Your task to perform on an android device: What's on my calendar today? Image 0: 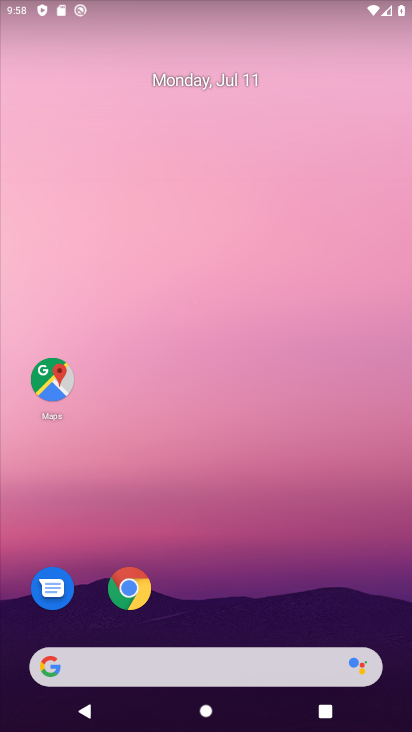
Step 0: drag from (189, 616) to (124, 16)
Your task to perform on an android device: What's on my calendar today? Image 1: 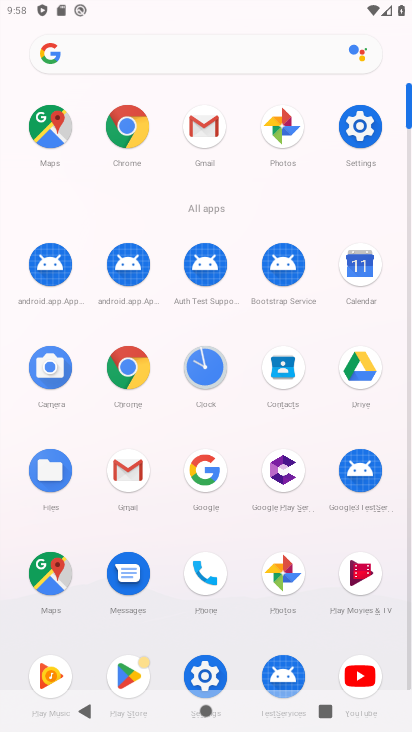
Step 1: click (360, 269)
Your task to perform on an android device: What's on my calendar today? Image 2: 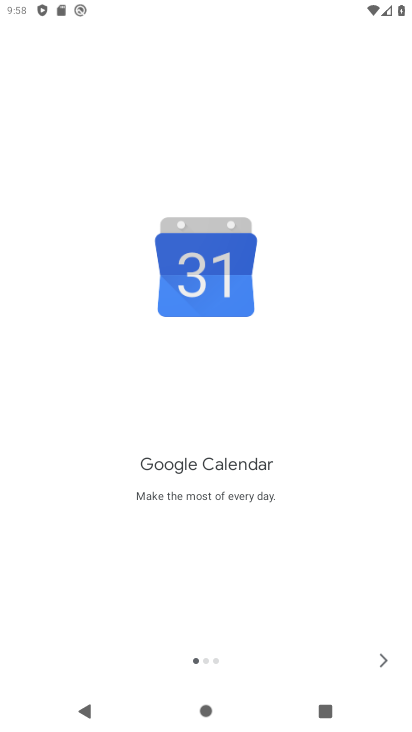
Step 2: click (384, 661)
Your task to perform on an android device: What's on my calendar today? Image 3: 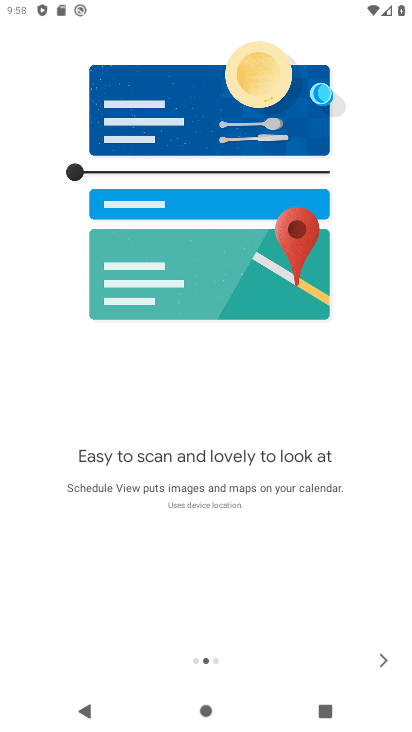
Step 3: click (383, 657)
Your task to perform on an android device: What's on my calendar today? Image 4: 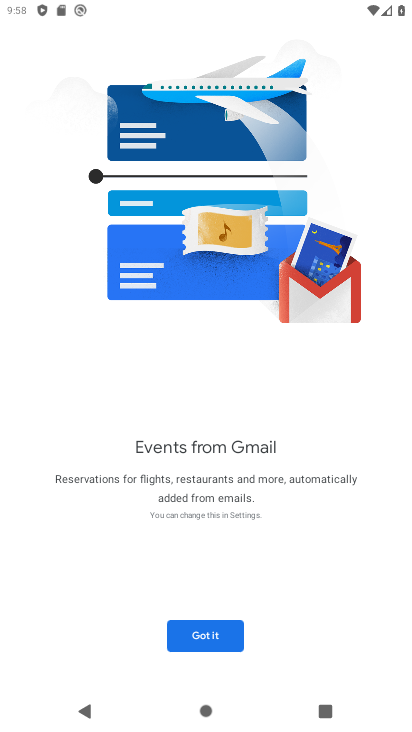
Step 4: click (222, 643)
Your task to perform on an android device: What's on my calendar today? Image 5: 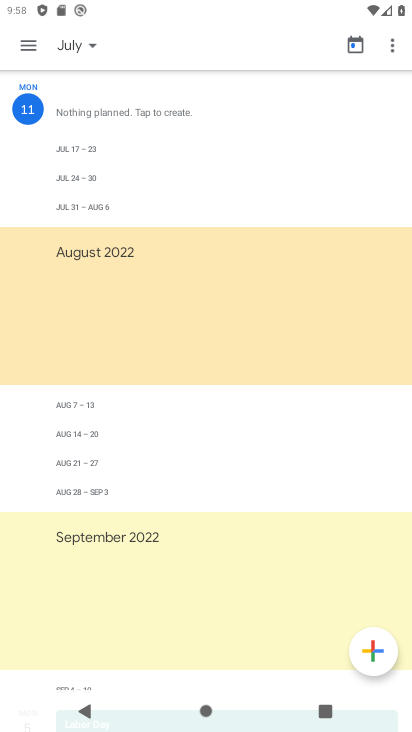
Step 5: click (31, 45)
Your task to perform on an android device: What's on my calendar today? Image 6: 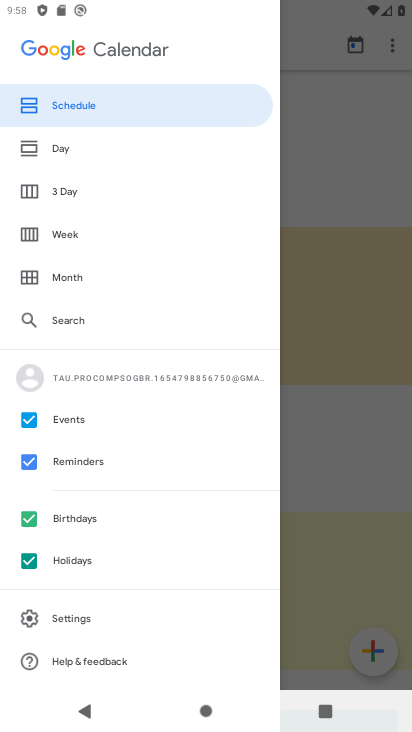
Step 6: click (65, 151)
Your task to perform on an android device: What's on my calendar today? Image 7: 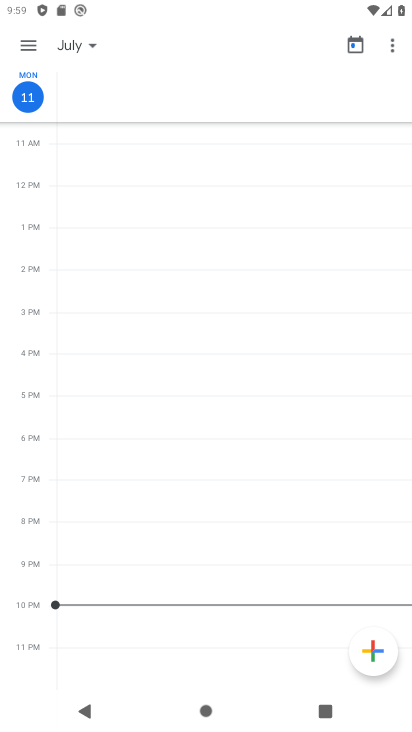
Step 7: task complete